Your task to perform on an android device: clear history in the chrome app Image 0: 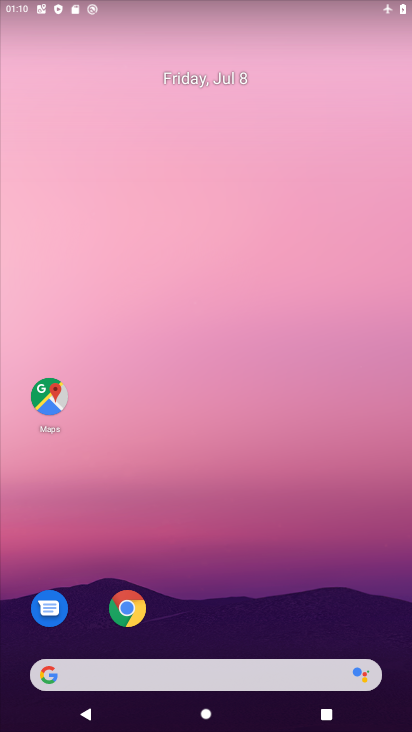
Step 0: click (129, 612)
Your task to perform on an android device: clear history in the chrome app Image 1: 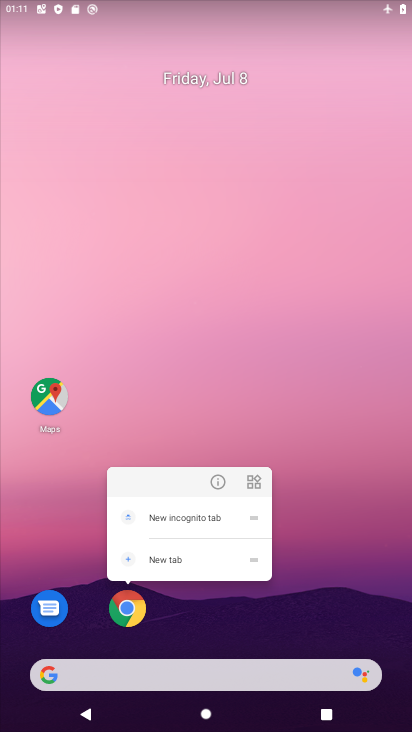
Step 1: click (132, 611)
Your task to perform on an android device: clear history in the chrome app Image 2: 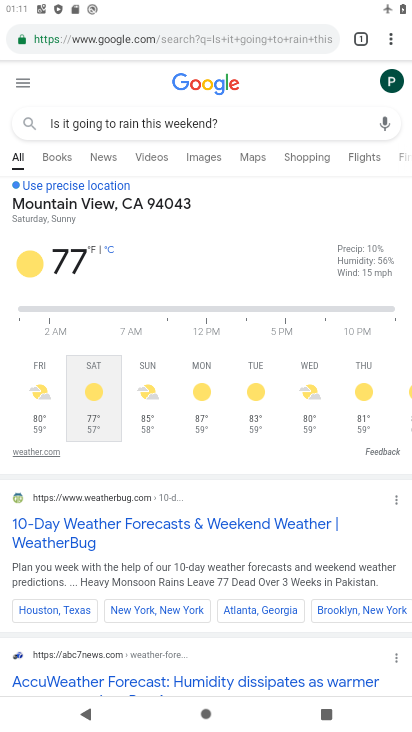
Step 2: drag from (390, 13) to (294, 504)
Your task to perform on an android device: clear history in the chrome app Image 3: 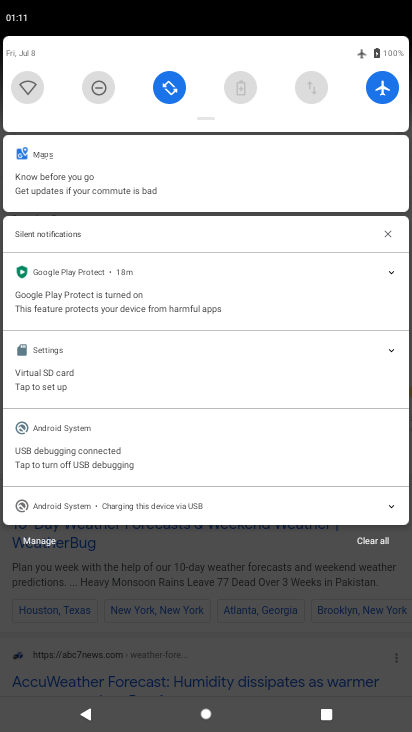
Step 3: click (367, 84)
Your task to perform on an android device: clear history in the chrome app Image 4: 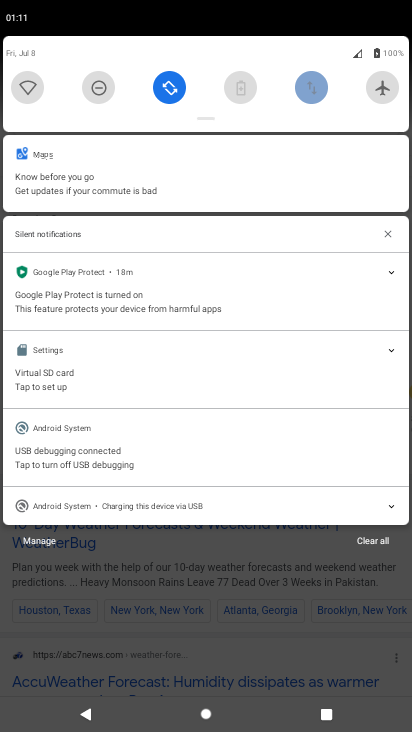
Step 4: drag from (225, 532) to (128, 23)
Your task to perform on an android device: clear history in the chrome app Image 5: 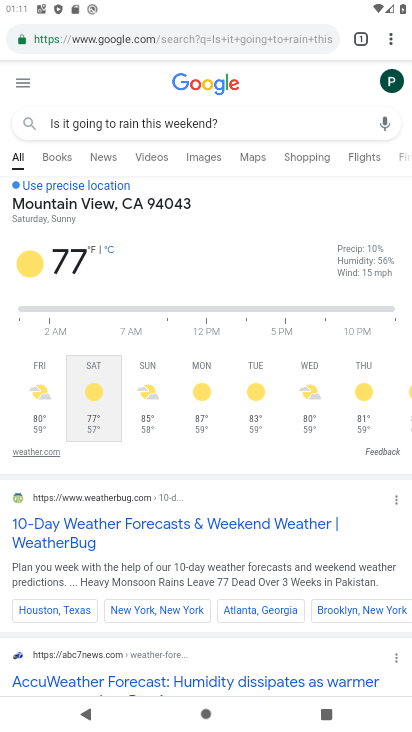
Step 5: drag from (394, 41) to (249, 266)
Your task to perform on an android device: clear history in the chrome app Image 6: 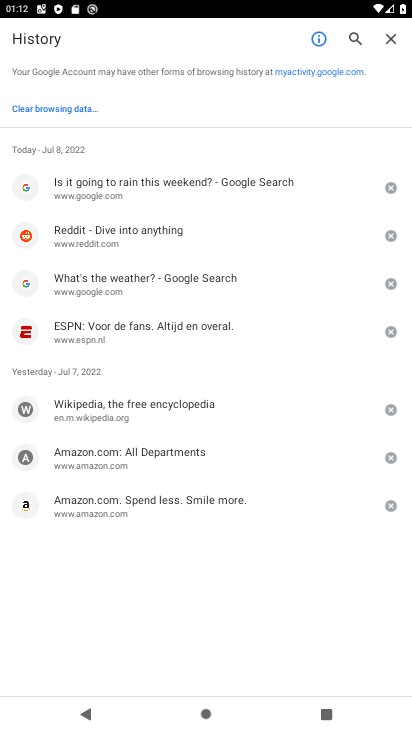
Step 6: click (393, 193)
Your task to perform on an android device: clear history in the chrome app Image 7: 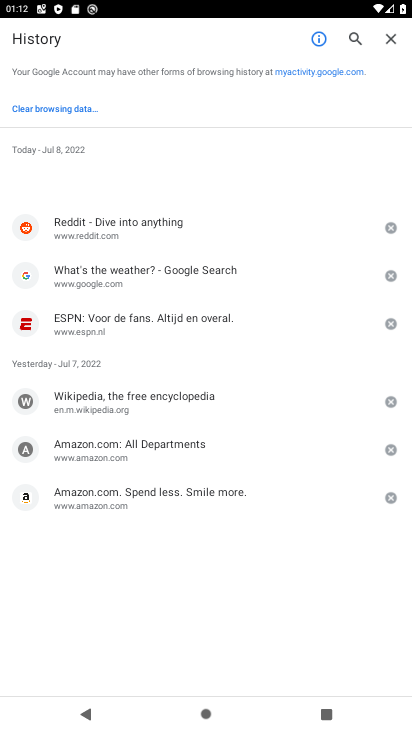
Step 7: click (393, 193)
Your task to perform on an android device: clear history in the chrome app Image 8: 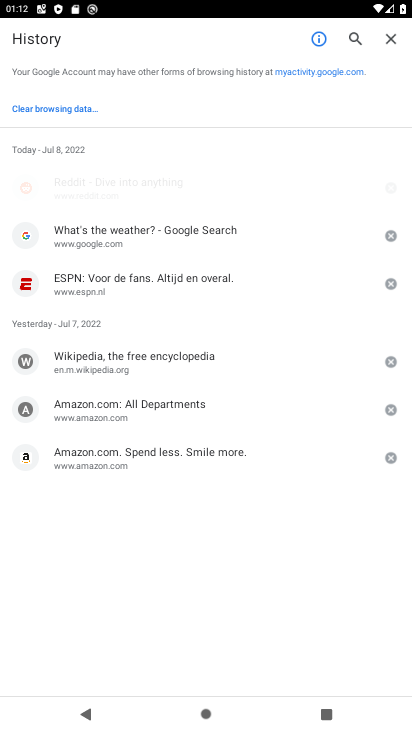
Step 8: click (393, 193)
Your task to perform on an android device: clear history in the chrome app Image 9: 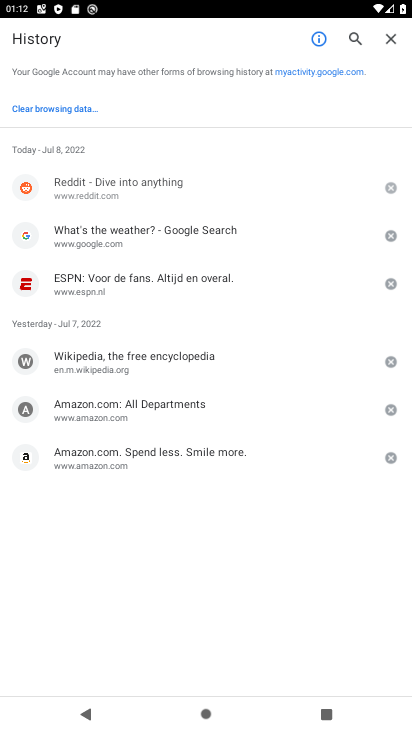
Step 9: click (393, 193)
Your task to perform on an android device: clear history in the chrome app Image 10: 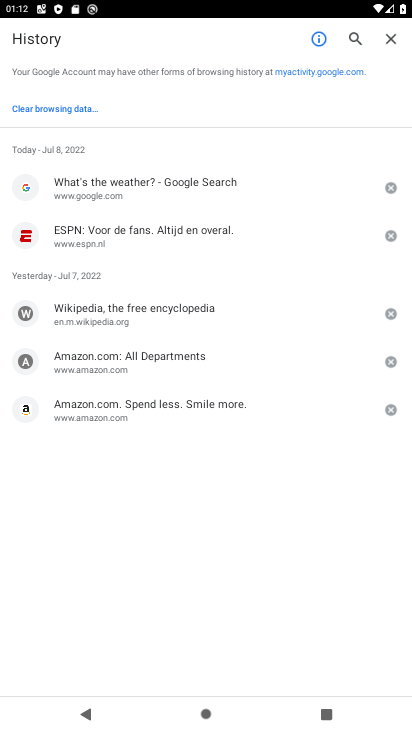
Step 10: click (393, 193)
Your task to perform on an android device: clear history in the chrome app Image 11: 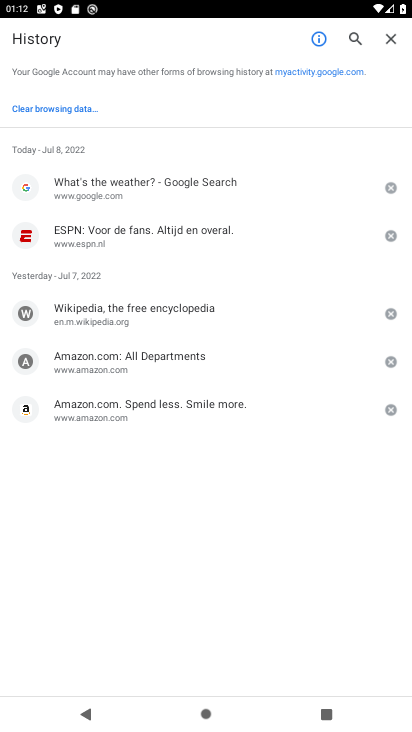
Step 11: click (393, 193)
Your task to perform on an android device: clear history in the chrome app Image 12: 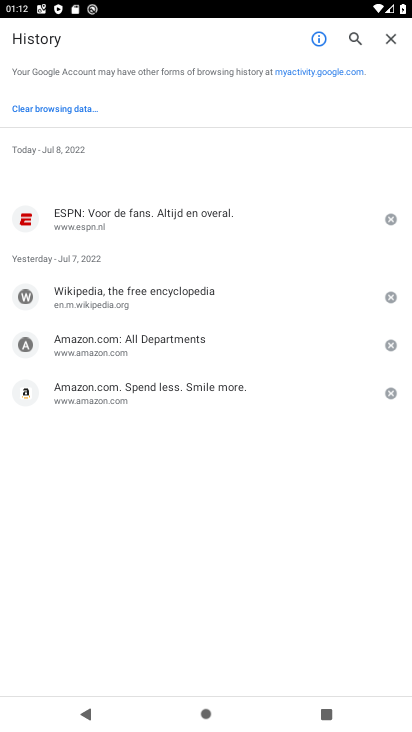
Step 12: click (393, 193)
Your task to perform on an android device: clear history in the chrome app Image 13: 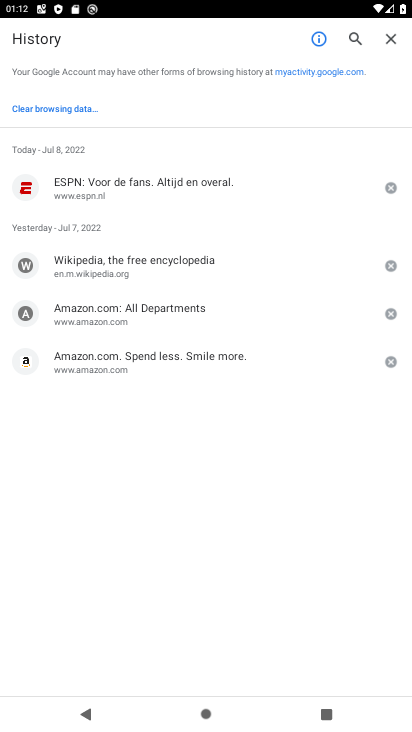
Step 13: click (393, 193)
Your task to perform on an android device: clear history in the chrome app Image 14: 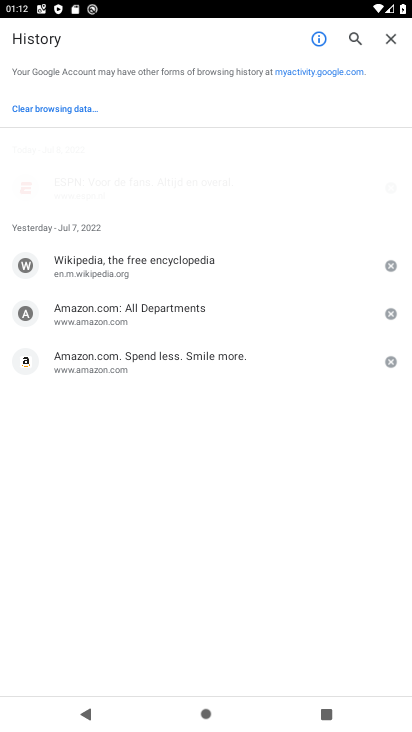
Step 14: click (393, 193)
Your task to perform on an android device: clear history in the chrome app Image 15: 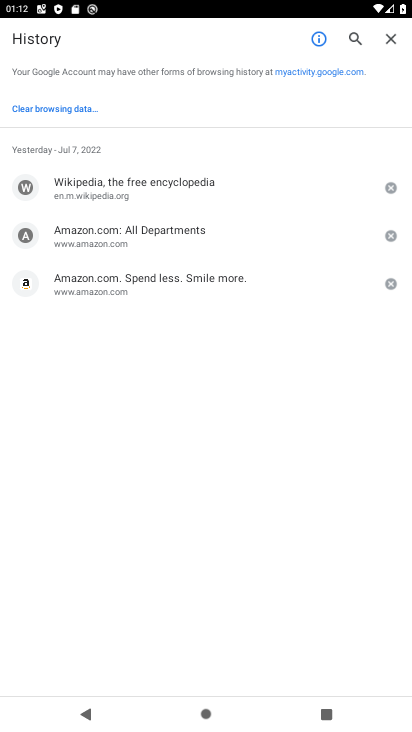
Step 15: click (395, 185)
Your task to perform on an android device: clear history in the chrome app Image 16: 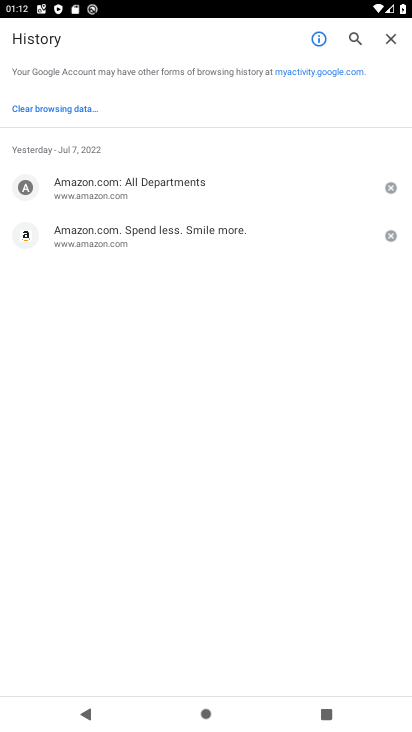
Step 16: click (395, 185)
Your task to perform on an android device: clear history in the chrome app Image 17: 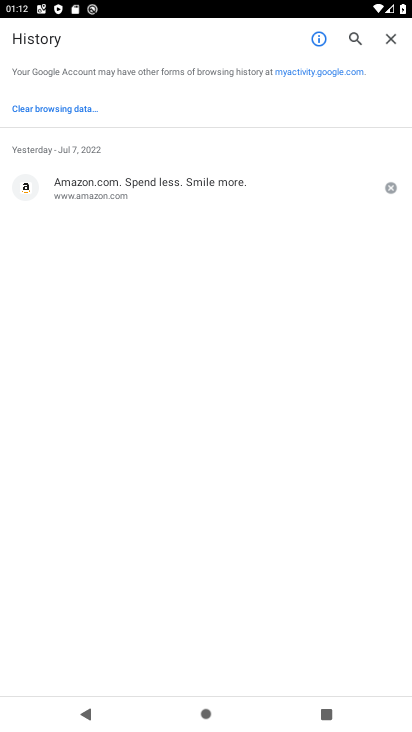
Step 17: click (395, 185)
Your task to perform on an android device: clear history in the chrome app Image 18: 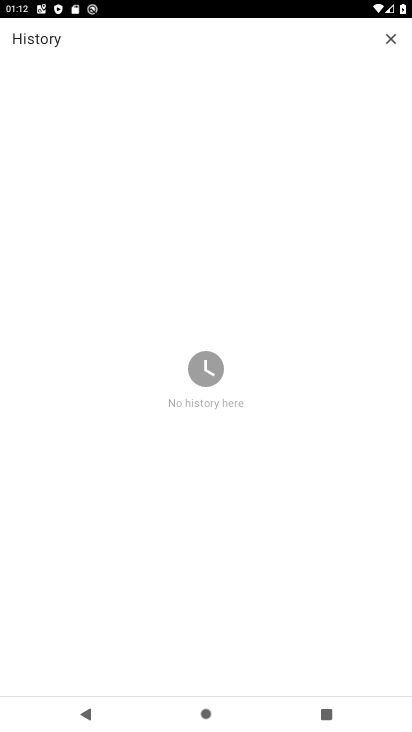
Step 18: click (395, 185)
Your task to perform on an android device: clear history in the chrome app Image 19: 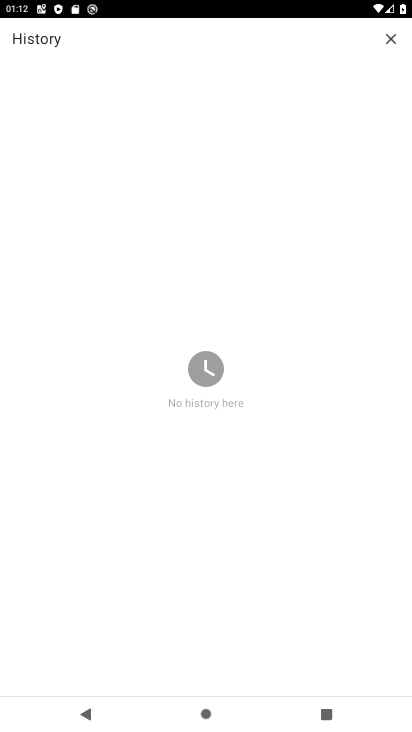
Step 19: click (395, 185)
Your task to perform on an android device: clear history in the chrome app Image 20: 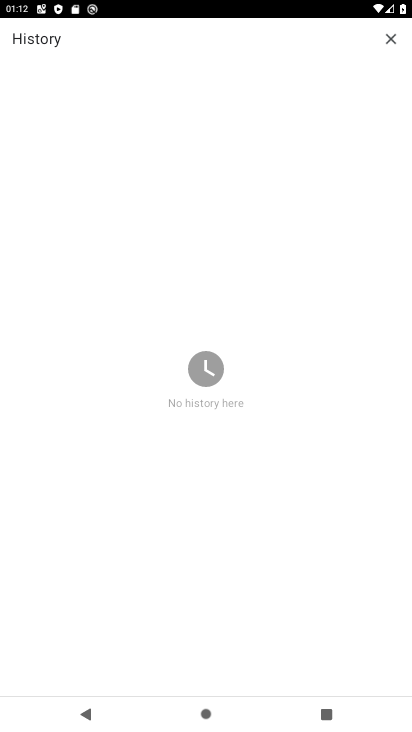
Step 20: task complete